Your task to perform on an android device: clear all cookies in the chrome app Image 0: 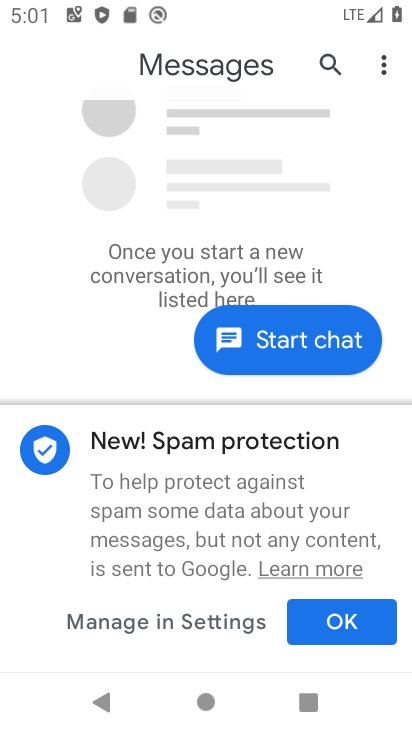
Step 0: press home button
Your task to perform on an android device: clear all cookies in the chrome app Image 1: 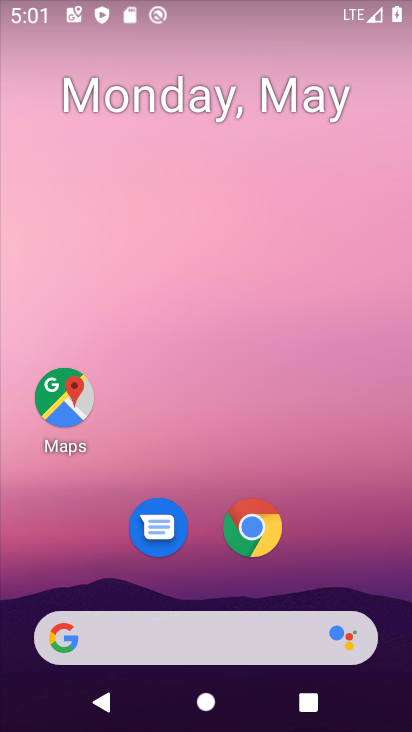
Step 1: click (249, 521)
Your task to perform on an android device: clear all cookies in the chrome app Image 2: 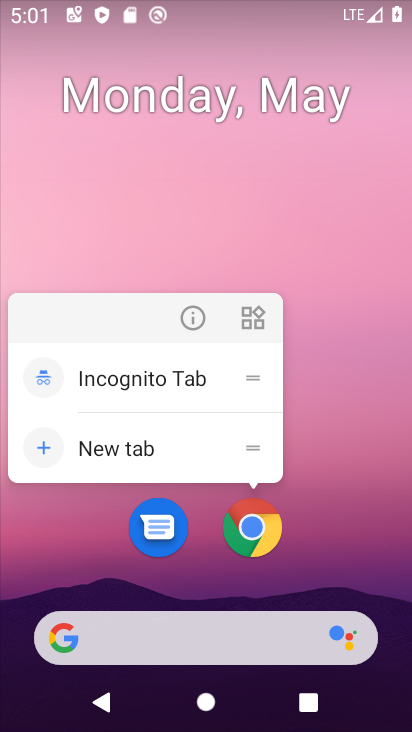
Step 2: click (331, 484)
Your task to perform on an android device: clear all cookies in the chrome app Image 3: 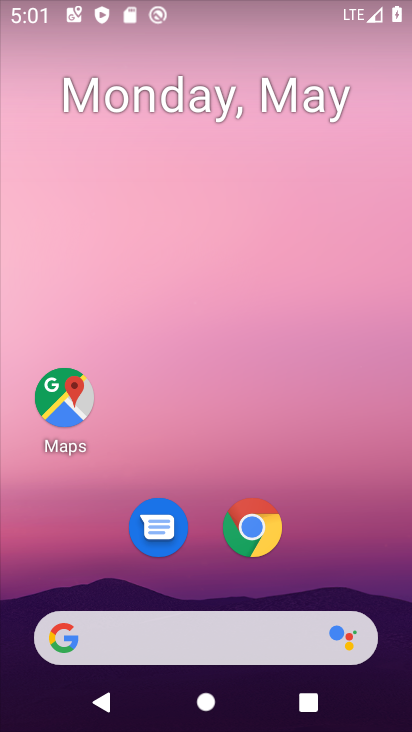
Step 3: click (250, 537)
Your task to perform on an android device: clear all cookies in the chrome app Image 4: 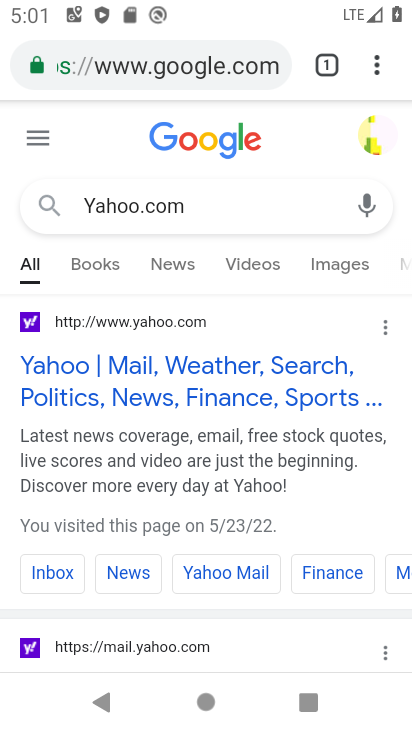
Step 4: click (377, 63)
Your task to perform on an android device: clear all cookies in the chrome app Image 5: 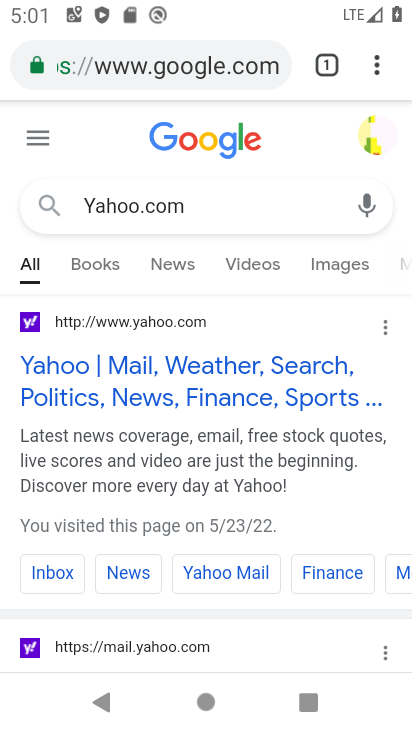
Step 5: click (376, 59)
Your task to perform on an android device: clear all cookies in the chrome app Image 6: 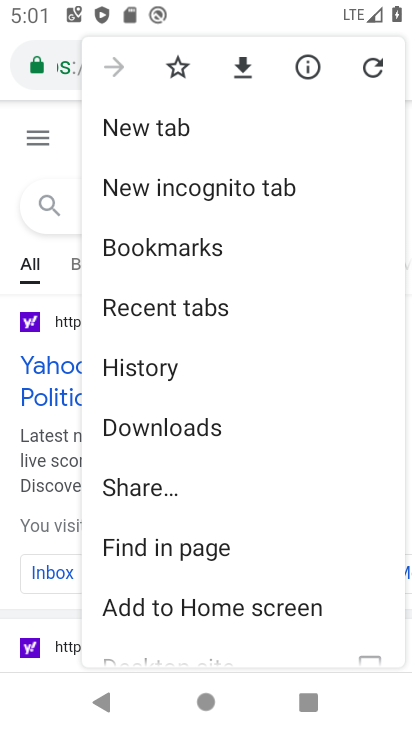
Step 6: drag from (315, 582) to (296, 251)
Your task to perform on an android device: clear all cookies in the chrome app Image 7: 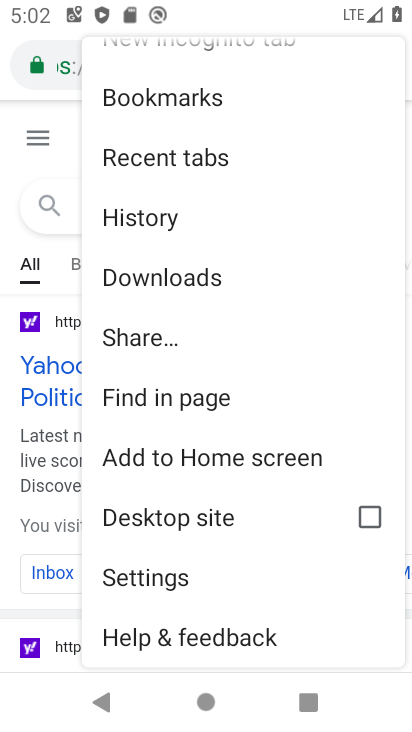
Step 7: click (142, 578)
Your task to perform on an android device: clear all cookies in the chrome app Image 8: 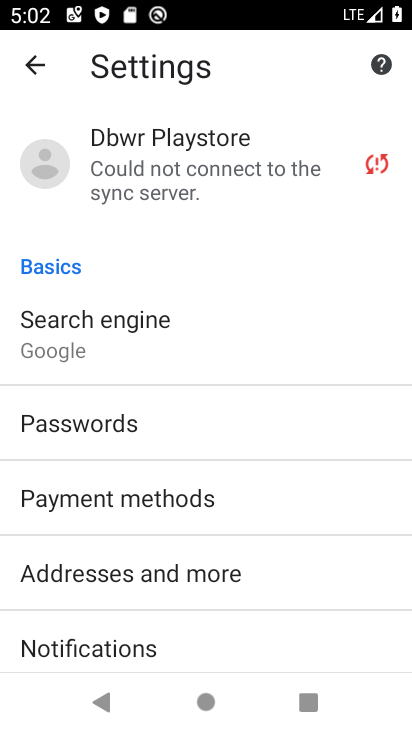
Step 8: click (31, 73)
Your task to perform on an android device: clear all cookies in the chrome app Image 9: 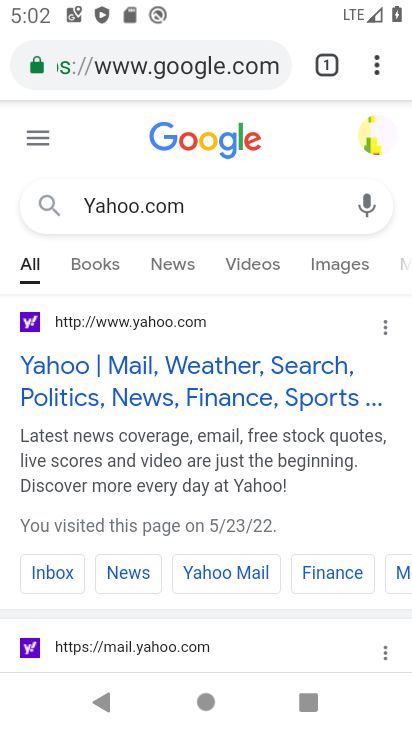
Step 9: click (375, 61)
Your task to perform on an android device: clear all cookies in the chrome app Image 10: 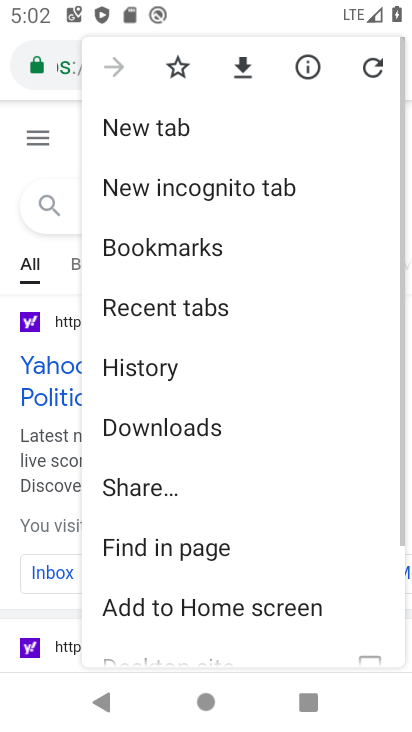
Step 10: click (145, 378)
Your task to perform on an android device: clear all cookies in the chrome app Image 11: 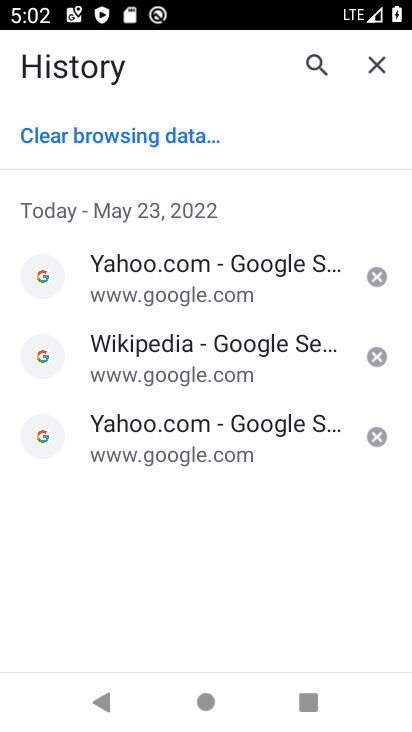
Step 11: click (99, 133)
Your task to perform on an android device: clear all cookies in the chrome app Image 12: 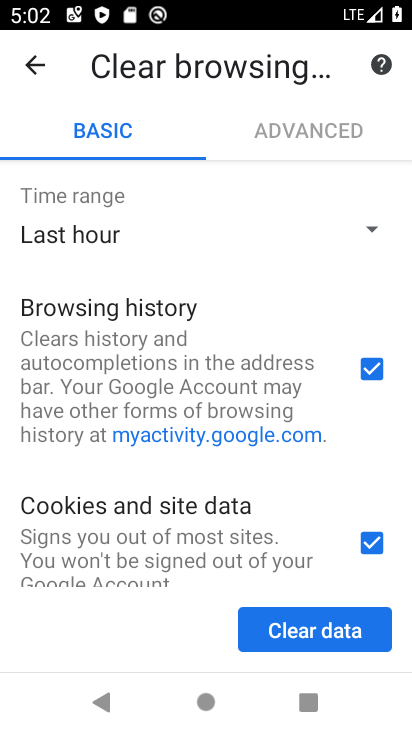
Step 12: click (320, 627)
Your task to perform on an android device: clear all cookies in the chrome app Image 13: 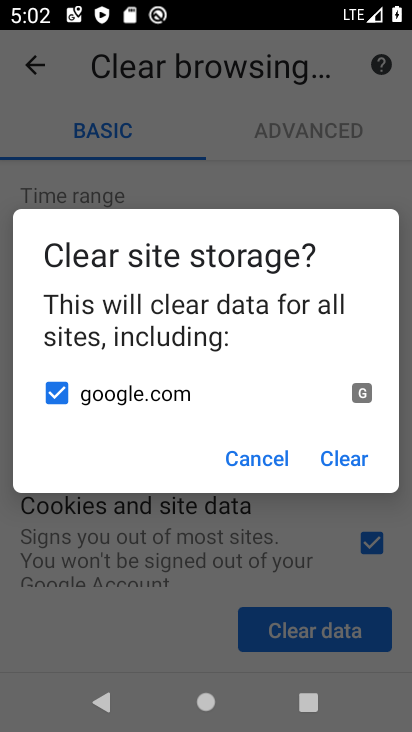
Step 13: click (315, 460)
Your task to perform on an android device: clear all cookies in the chrome app Image 14: 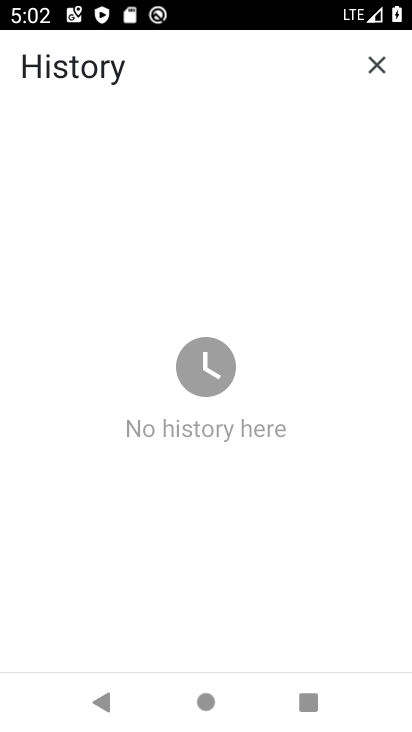
Step 14: task complete